Your task to perform on an android device: Open the phone app and click the voicemail tab. Image 0: 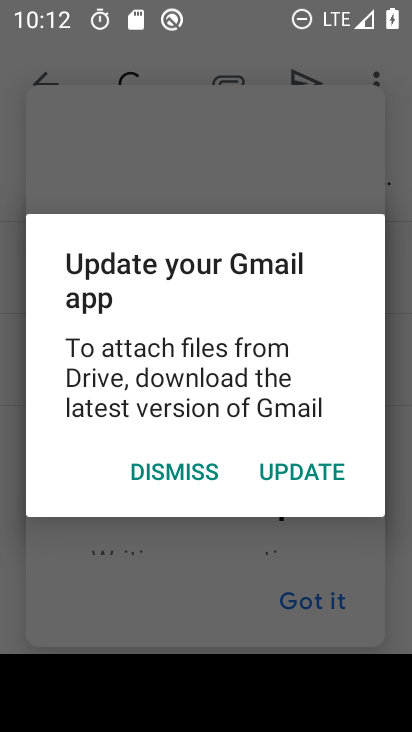
Step 0: press home button
Your task to perform on an android device: Open the phone app and click the voicemail tab. Image 1: 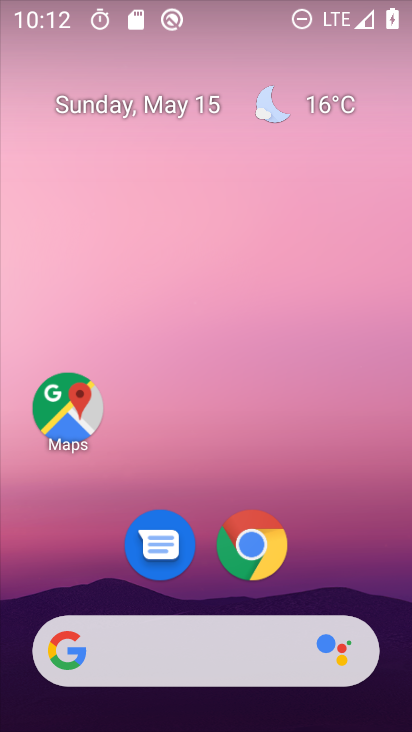
Step 1: drag from (367, 537) to (226, 63)
Your task to perform on an android device: Open the phone app and click the voicemail tab. Image 2: 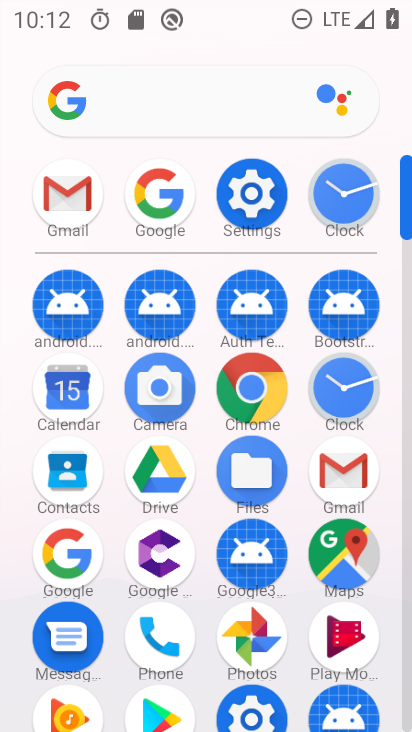
Step 2: drag from (207, 448) to (200, 223)
Your task to perform on an android device: Open the phone app and click the voicemail tab. Image 3: 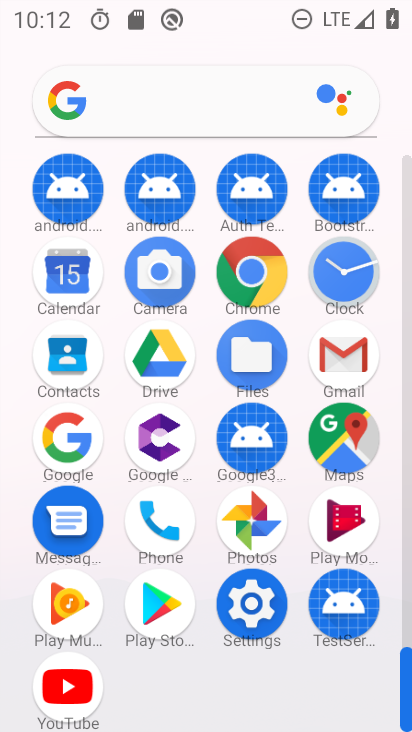
Step 3: click (153, 529)
Your task to perform on an android device: Open the phone app and click the voicemail tab. Image 4: 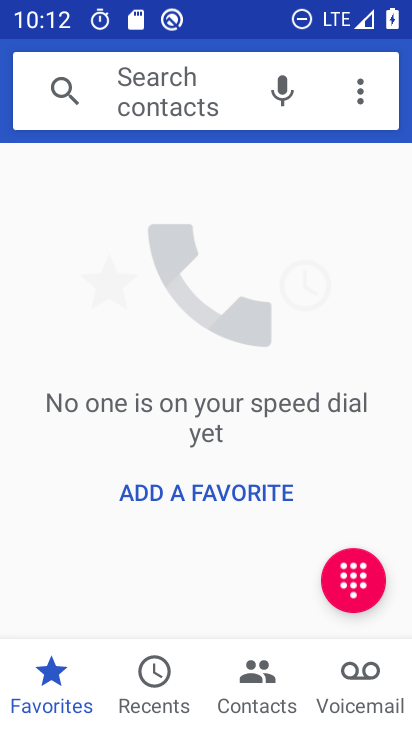
Step 4: click (357, 669)
Your task to perform on an android device: Open the phone app and click the voicemail tab. Image 5: 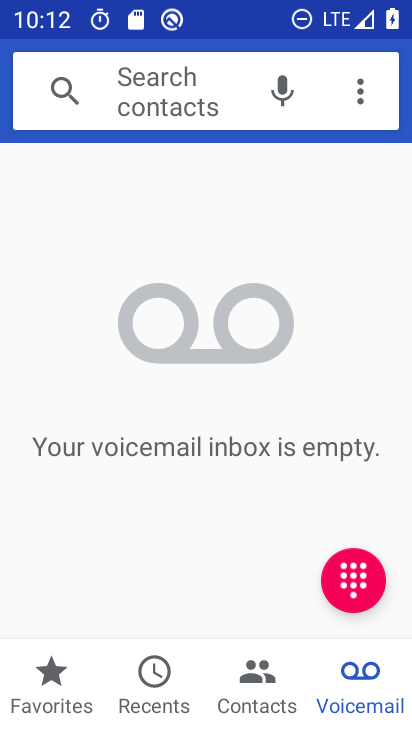
Step 5: task complete